Your task to perform on an android device: clear all cookies in the chrome app Image 0: 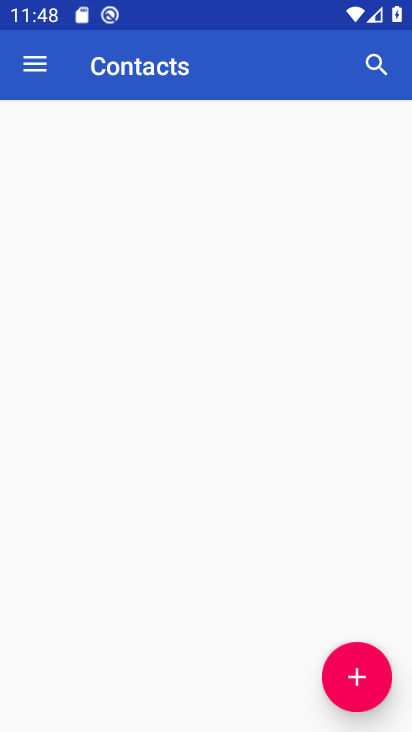
Step 0: press home button
Your task to perform on an android device: clear all cookies in the chrome app Image 1: 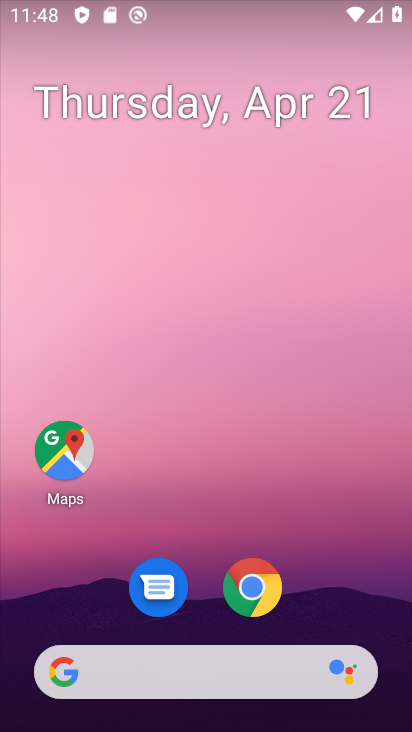
Step 1: click (263, 588)
Your task to perform on an android device: clear all cookies in the chrome app Image 2: 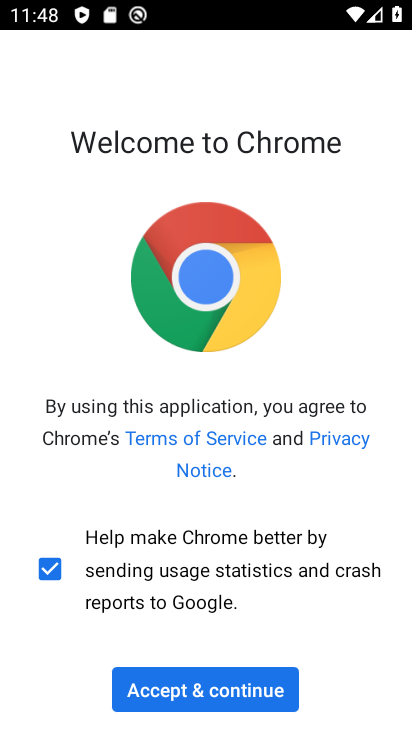
Step 2: click (208, 683)
Your task to perform on an android device: clear all cookies in the chrome app Image 3: 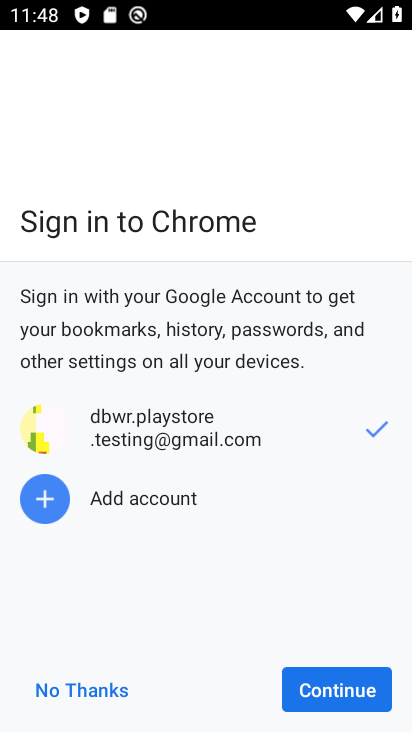
Step 3: click (64, 697)
Your task to perform on an android device: clear all cookies in the chrome app Image 4: 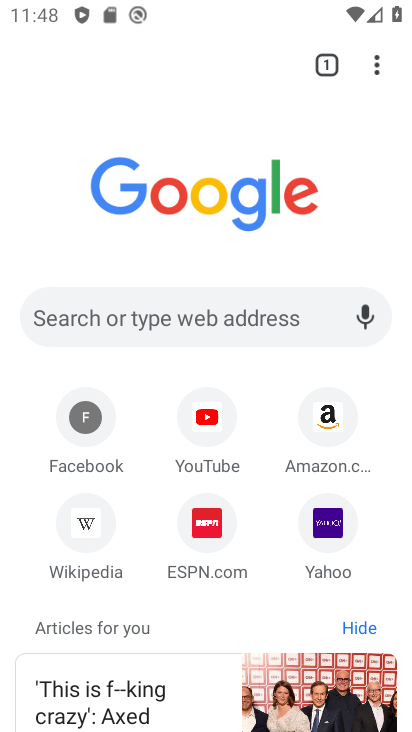
Step 4: click (375, 66)
Your task to perform on an android device: clear all cookies in the chrome app Image 5: 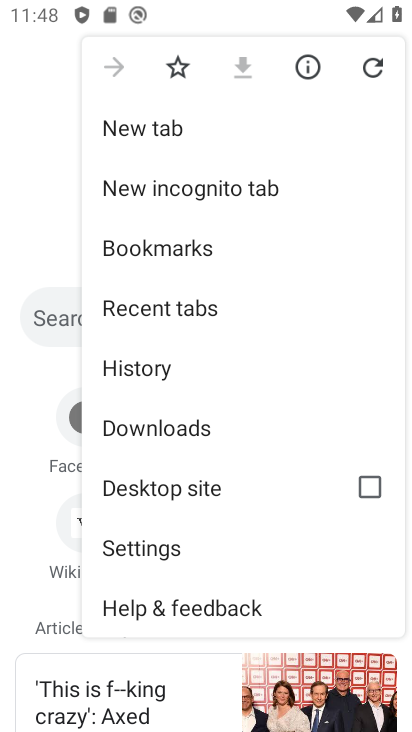
Step 5: click (149, 552)
Your task to perform on an android device: clear all cookies in the chrome app Image 6: 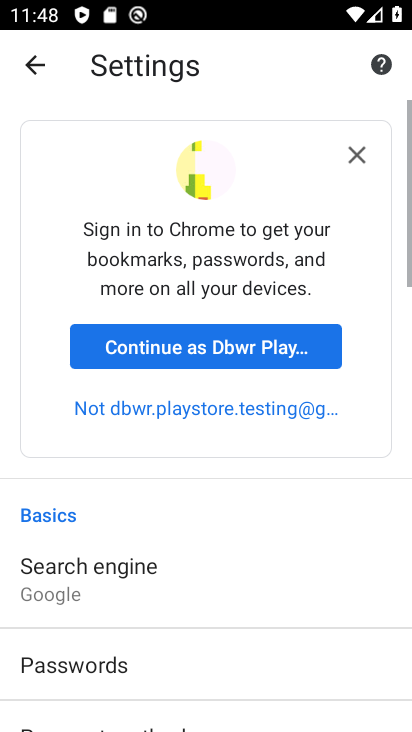
Step 6: drag from (151, 531) to (150, 14)
Your task to perform on an android device: clear all cookies in the chrome app Image 7: 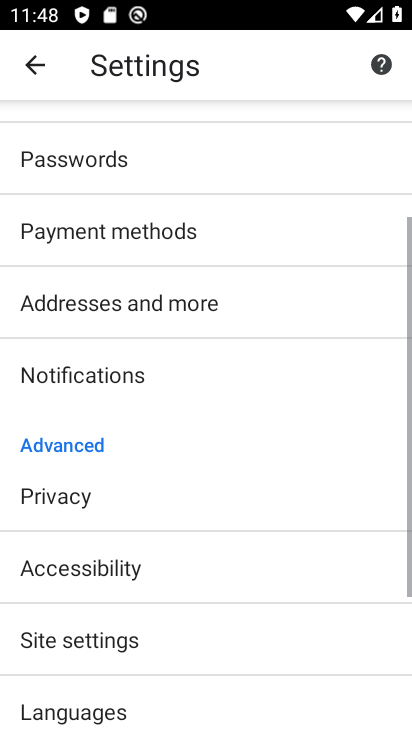
Step 7: click (80, 492)
Your task to perform on an android device: clear all cookies in the chrome app Image 8: 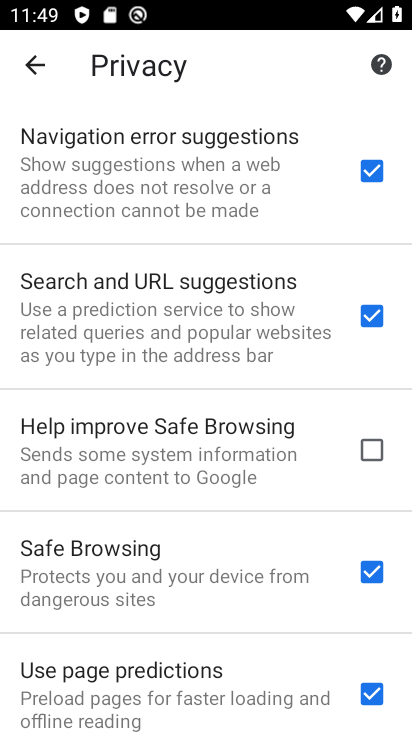
Step 8: drag from (207, 592) to (213, 193)
Your task to perform on an android device: clear all cookies in the chrome app Image 9: 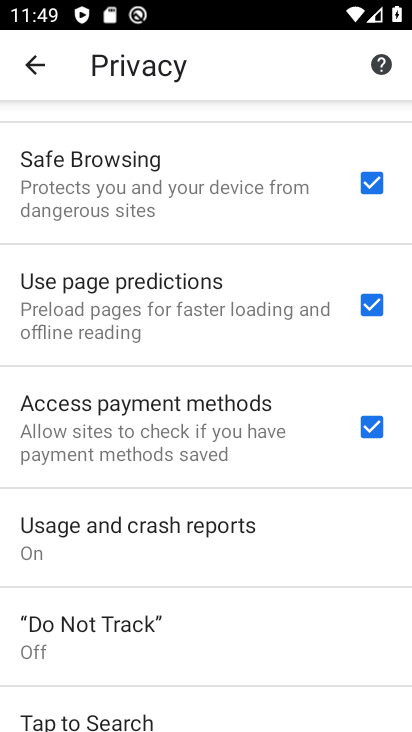
Step 9: drag from (185, 596) to (185, 143)
Your task to perform on an android device: clear all cookies in the chrome app Image 10: 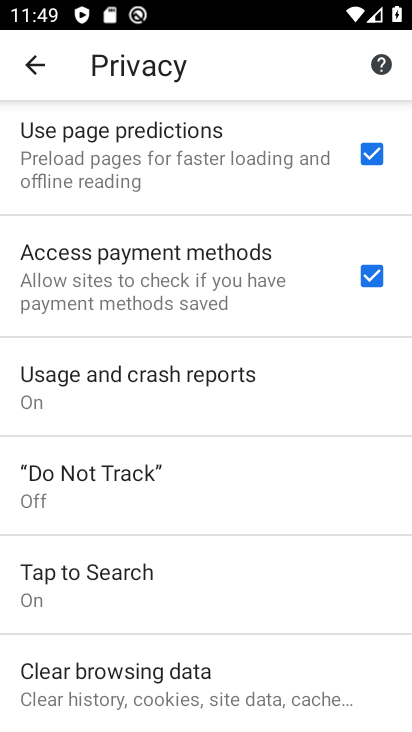
Step 10: click (143, 676)
Your task to perform on an android device: clear all cookies in the chrome app Image 11: 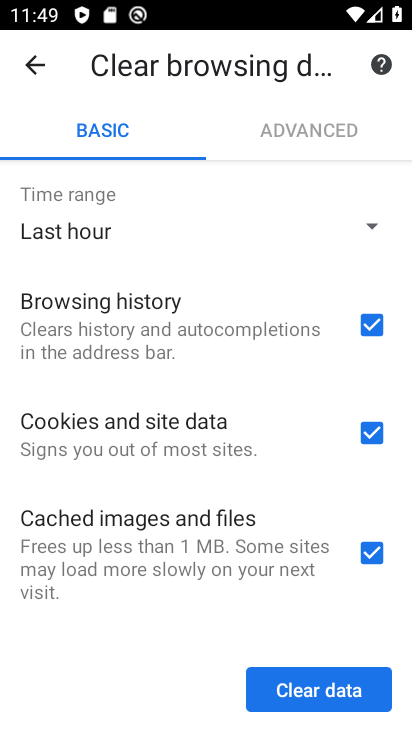
Step 11: click (365, 320)
Your task to perform on an android device: clear all cookies in the chrome app Image 12: 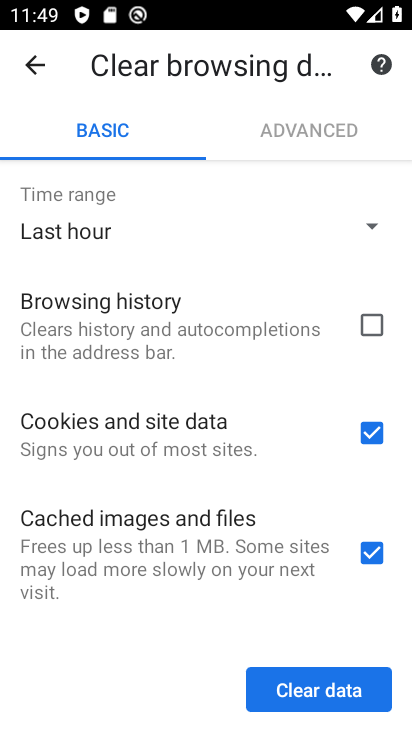
Step 12: click (365, 549)
Your task to perform on an android device: clear all cookies in the chrome app Image 13: 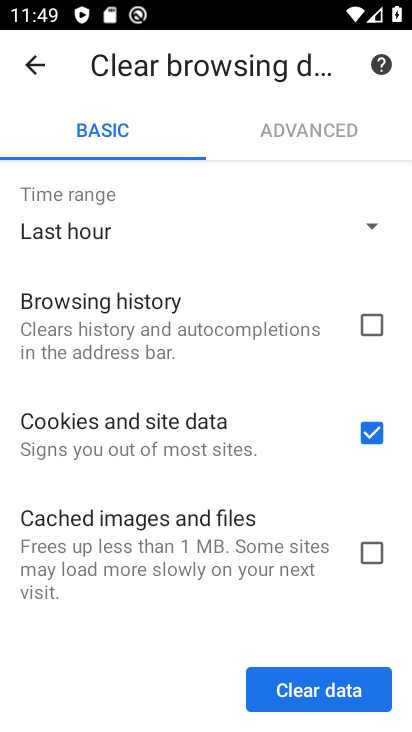
Step 13: click (300, 693)
Your task to perform on an android device: clear all cookies in the chrome app Image 14: 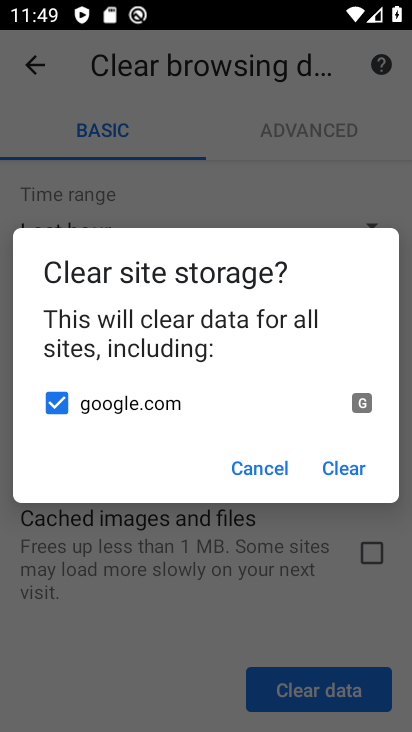
Step 14: click (333, 473)
Your task to perform on an android device: clear all cookies in the chrome app Image 15: 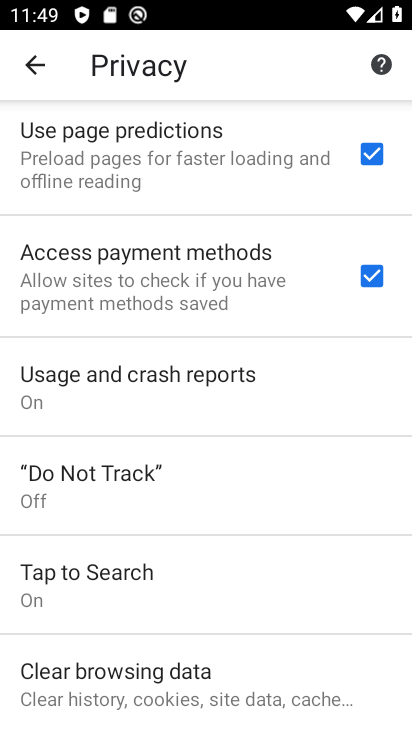
Step 15: task complete